Your task to perform on an android device: toggle javascript in the chrome app Image 0: 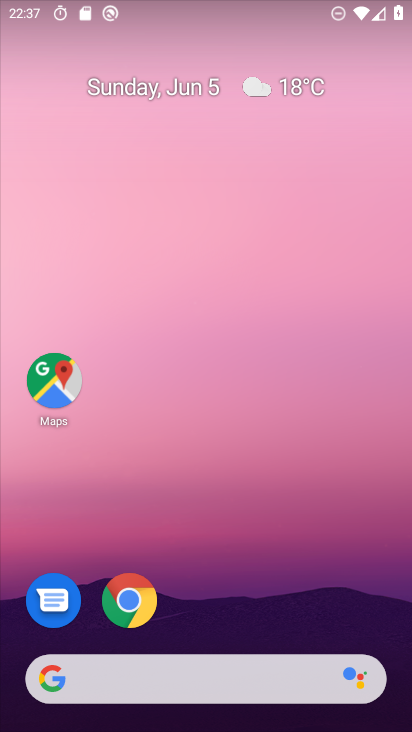
Step 0: click (126, 596)
Your task to perform on an android device: toggle javascript in the chrome app Image 1: 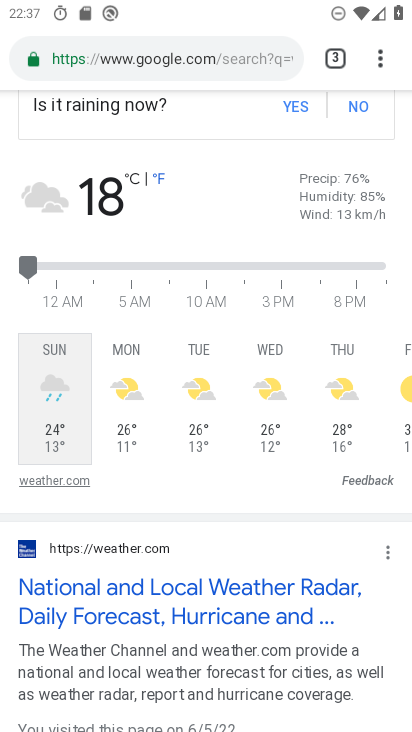
Step 1: click (386, 52)
Your task to perform on an android device: toggle javascript in the chrome app Image 2: 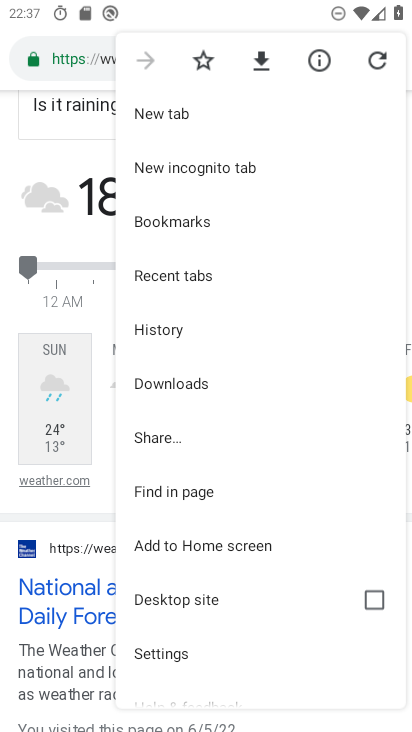
Step 2: click (174, 649)
Your task to perform on an android device: toggle javascript in the chrome app Image 3: 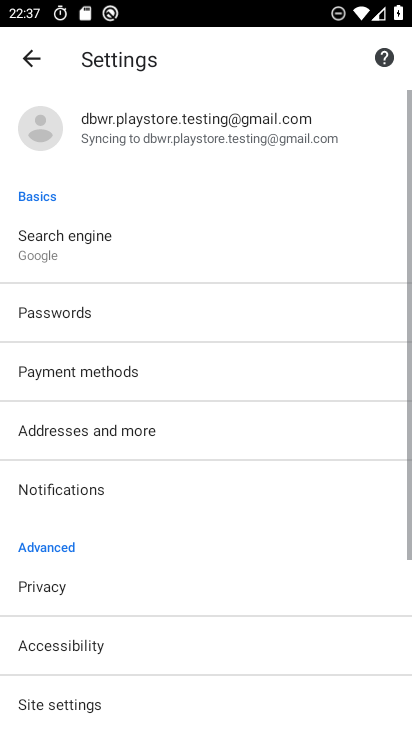
Step 3: drag from (169, 632) to (190, 216)
Your task to perform on an android device: toggle javascript in the chrome app Image 4: 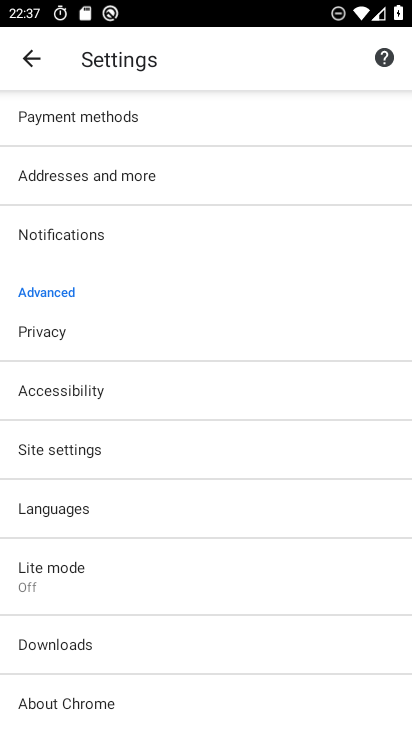
Step 4: click (93, 454)
Your task to perform on an android device: toggle javascript in the chrome app Image 5: 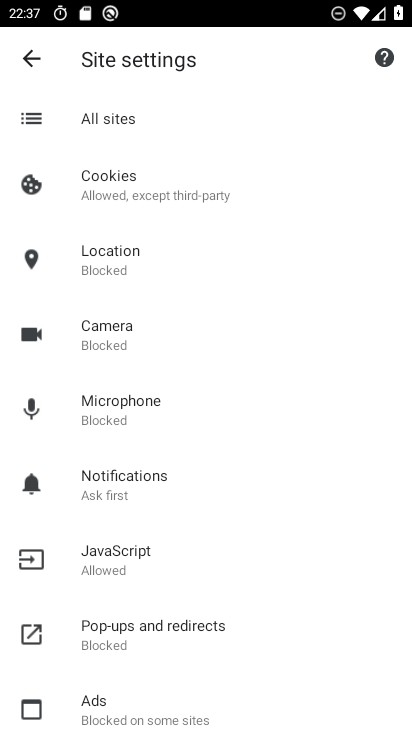
Step 5: click (153, 563)
Your task to perform on an android device: toggle javascript in the chrome app Image 6: 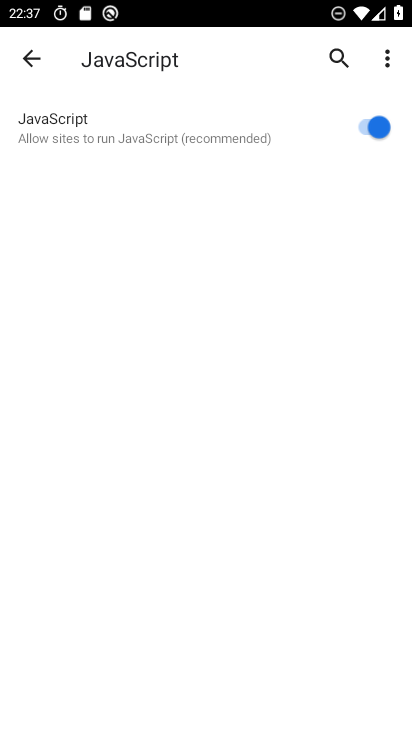
Step 6: click (391, 131)
Your task to perform on an android device: toggle javascript in the chrome app Image 7: 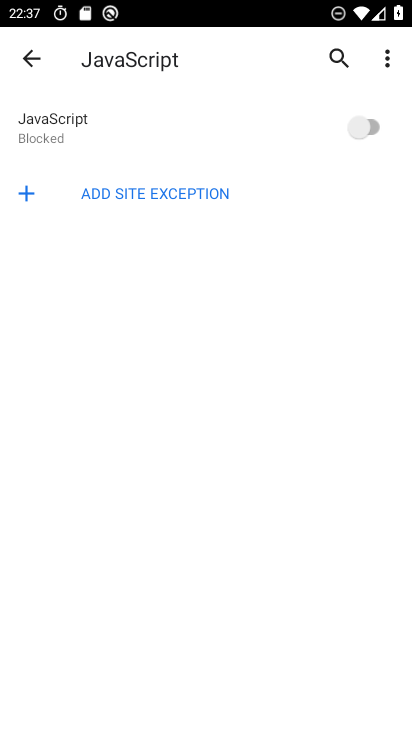
Step 7: task complete